Your task to perform on an android device: turn off location Image 0: 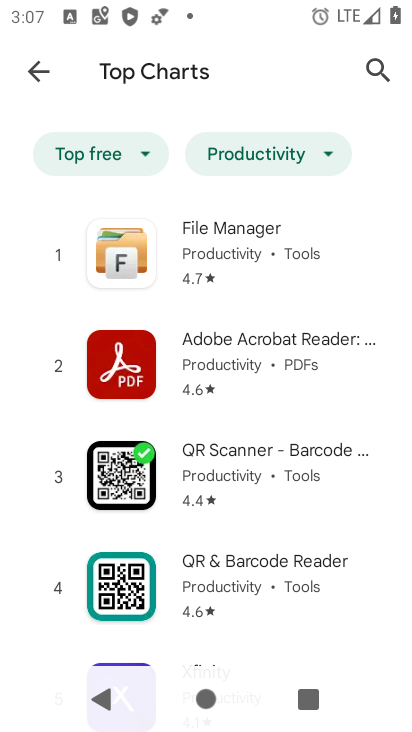
Step 0: press home button
Your task to perform on an android device: turn off location Image 1: 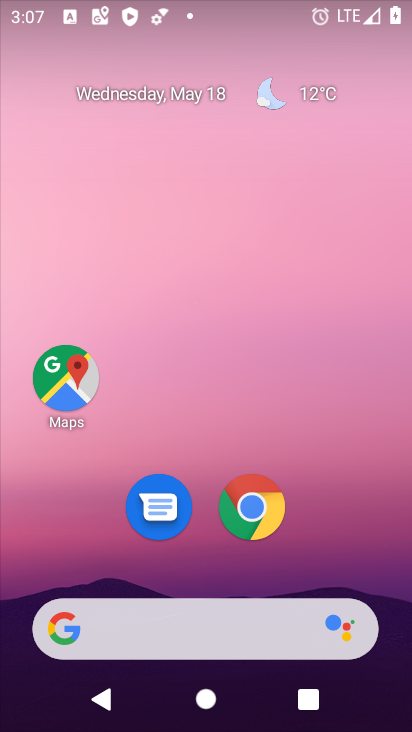
Step 1: drag from (400, 604) to (306, 105)
Your task to perform on an android device: turn off location Image 2: 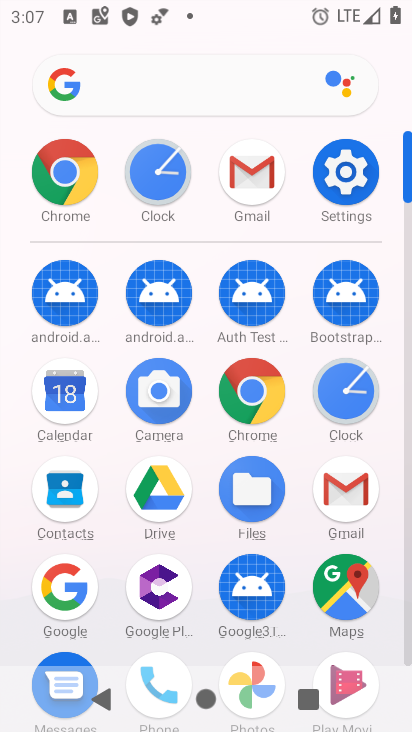
Step 2: click (406, 653)
Your task to perform on an android device: turn off location Image 3: 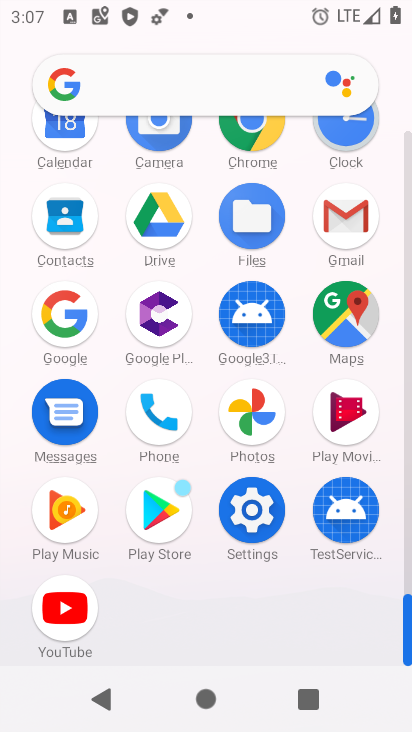
Step 3: click (254, 504)
Your task to perform on an android device: turn off location Image 4: 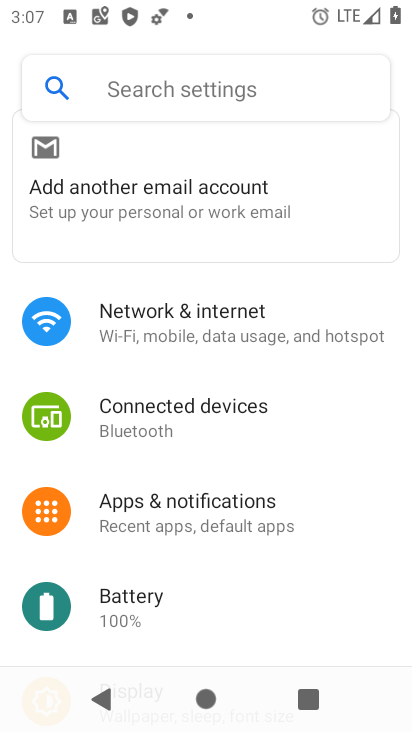
Step 4: drag from (293, 577) to (290, 177)
Your task to perform on an android device: turn off location Image 5: 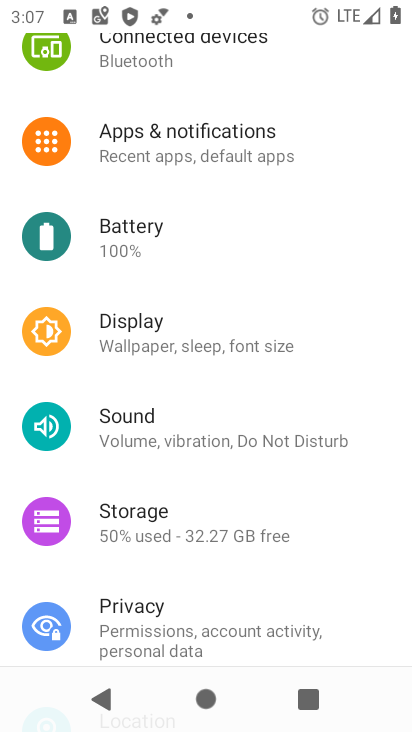
Step 5: drag from (303, 623) to (281, 230)
Your task to perform on an android device: turn off location Image 6: 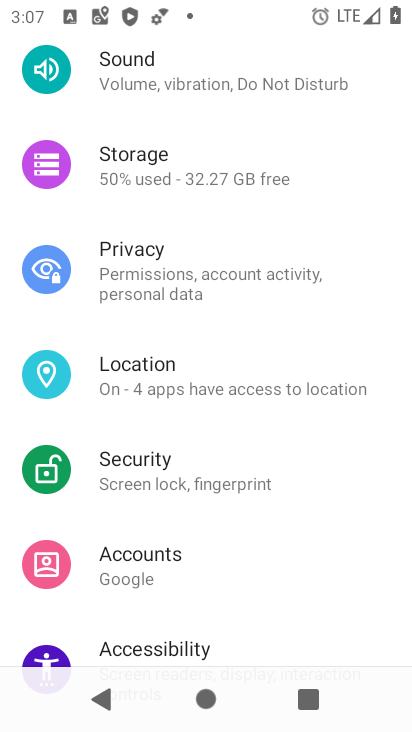
Step 6: click (154, 377)
Your task to perform on an android device: turn off location Image 7: 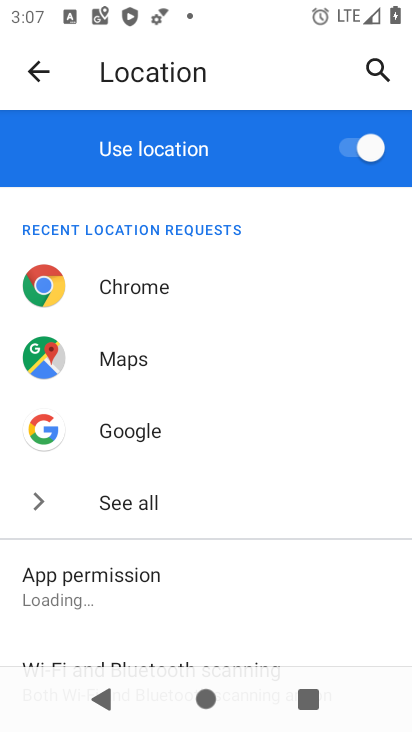
Step 7: click (343, 145)
Your task to perform on an android device: turn off location Image 8: 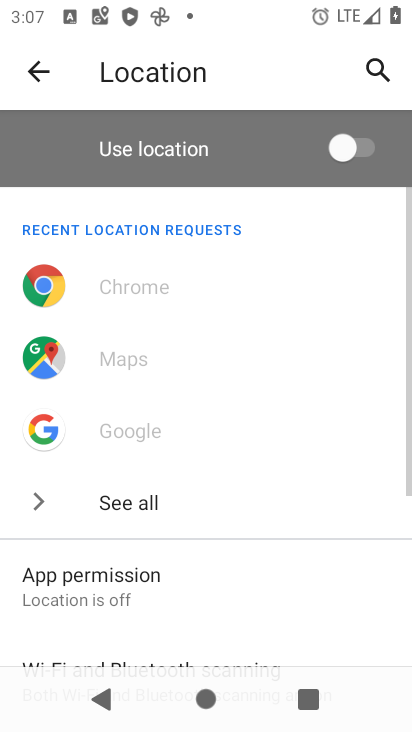
Step 8: task complete